Your task to perform on an android device: turn pop-ups on in chrome Image 0: 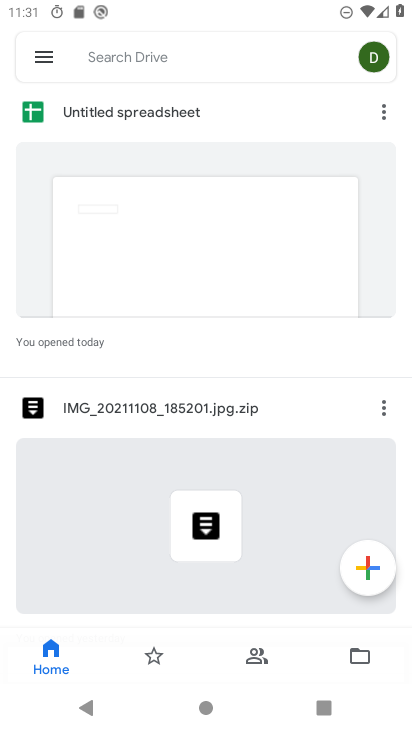
Step 0: press home button
Your task to perform on an android device: turn pop-ups on in chrome Image 1: 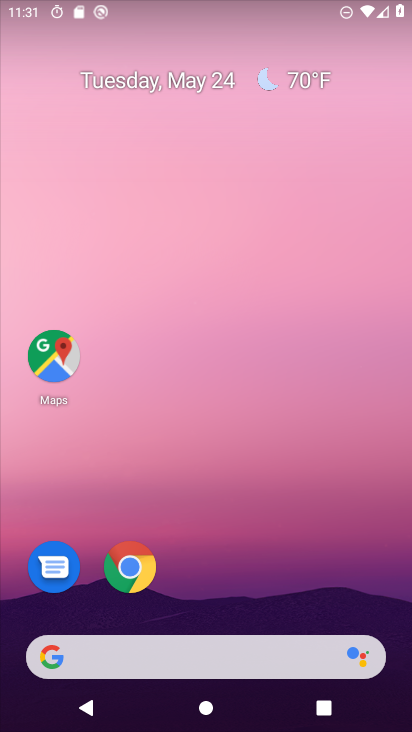
Step 1: click (130, 563)
Your task to perform on an android device: turn pop-ups on in chrome Image 2: 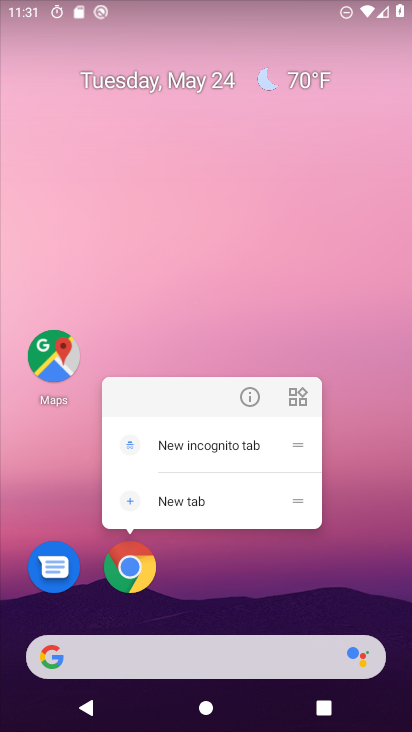
Step 2: click (130, 562)
Your task to perform on an android device: turn pop-ups on in chrome Image 3: 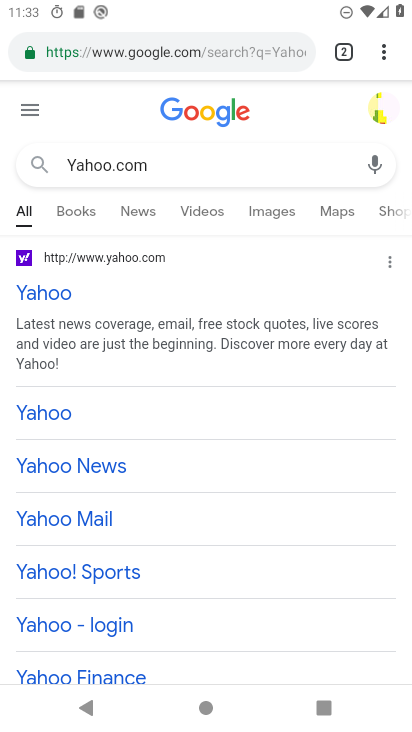
Step 3: click (380, 51)
Your task to perform on an android device: turn pop-ups on in chrome Image 4: 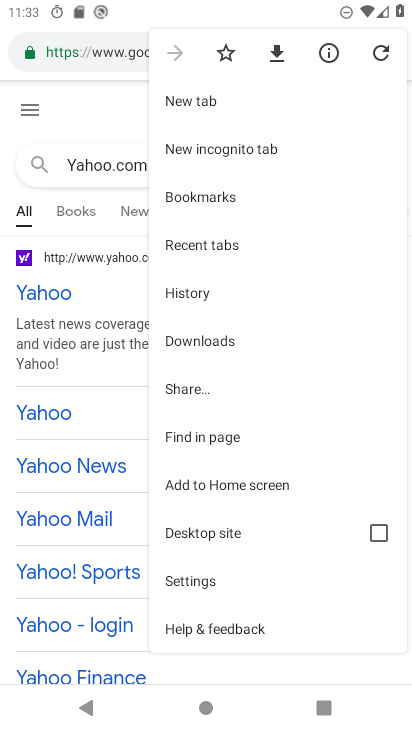
Step 4: drag from (308, 590) to (302, 343)
Your task to perform on an android device: turn pop-ups on in chrome Image 5: 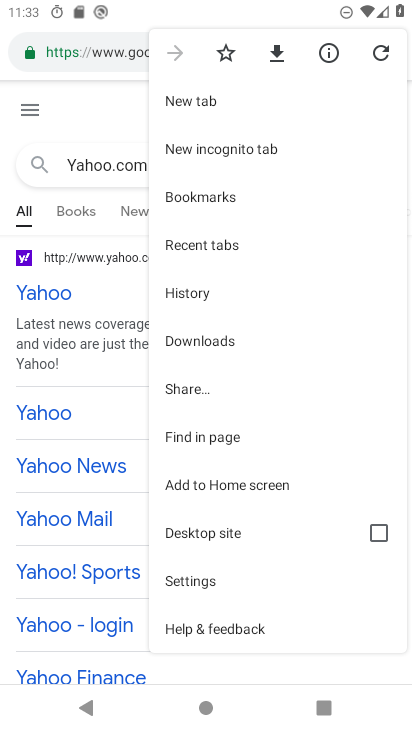
Step 5: click (169, 585)
Your task to perform on an android device: turn pop-ups on in chrome Image 6: 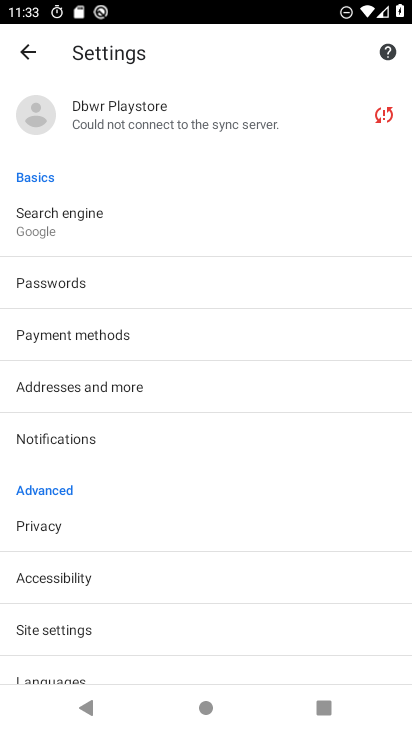
Step 6: click (29, 629)
Your task to perform on an android device: turn pop-ups on in chrome Image 7: 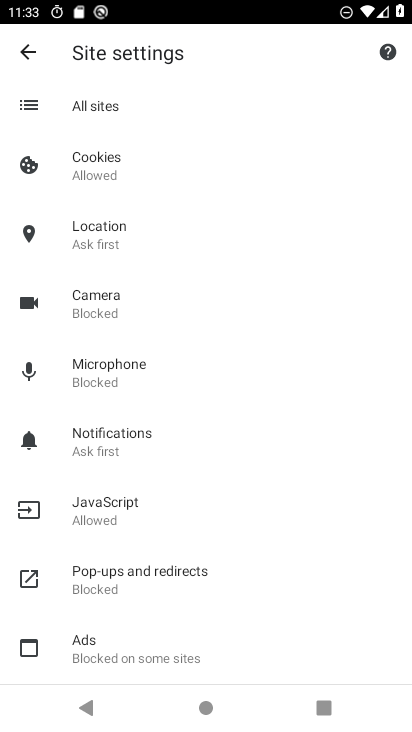
Step 7: click (87, 580)
Your task to perform on an android device: turn pop-ups on in chrome Image 8: 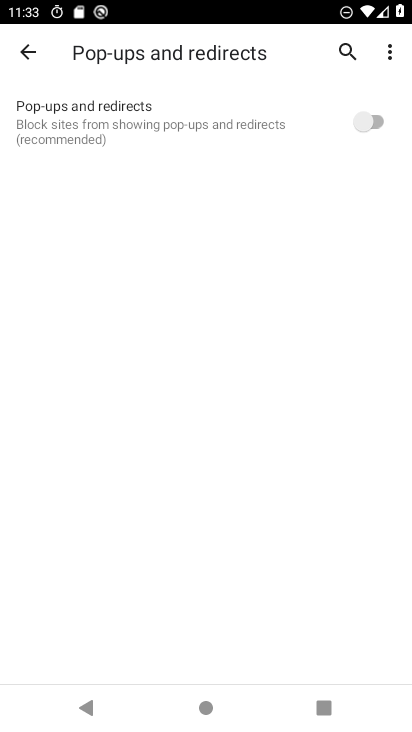
Step 8: click (379, 124)
Your task to perform on an android device: turn pop-ups on in chrome Image 9: 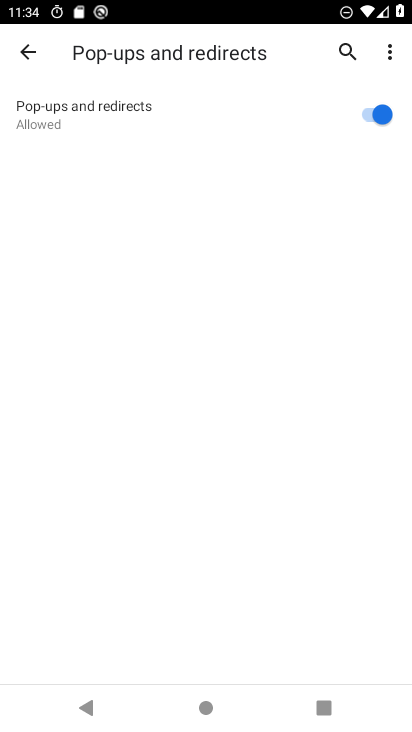
Step 9: task complete